Your task to perform on an android device: toggle airplane mode Image 0: 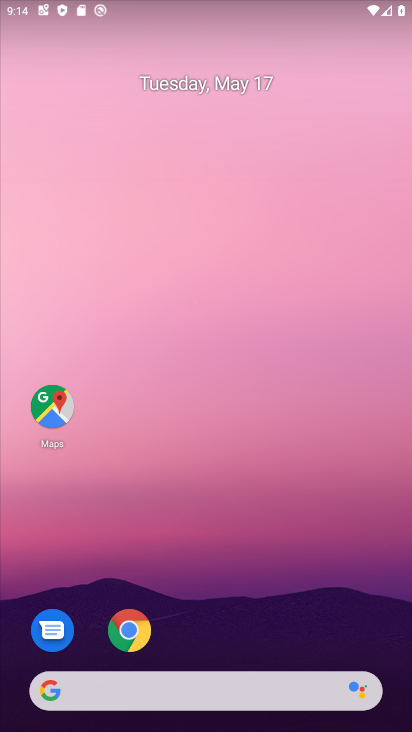
Step 0: drag from (246, 647) to (246, 21)
Your task to perform on an android device: toggle airplane mode Image 1: 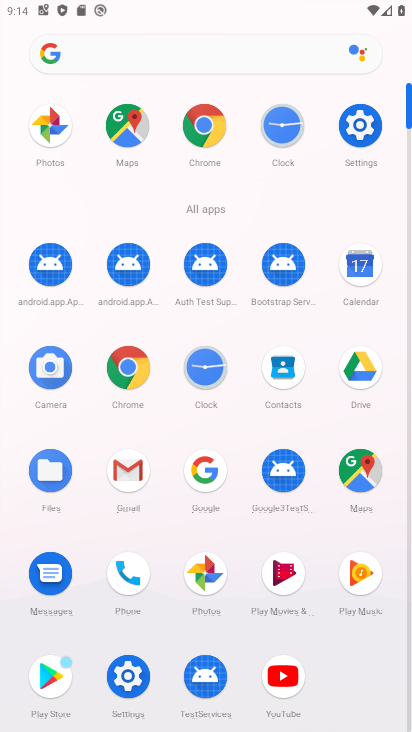
Step 1: click (357, 127)
Your task to perform on an android device: toggle airplane mode Image 2: 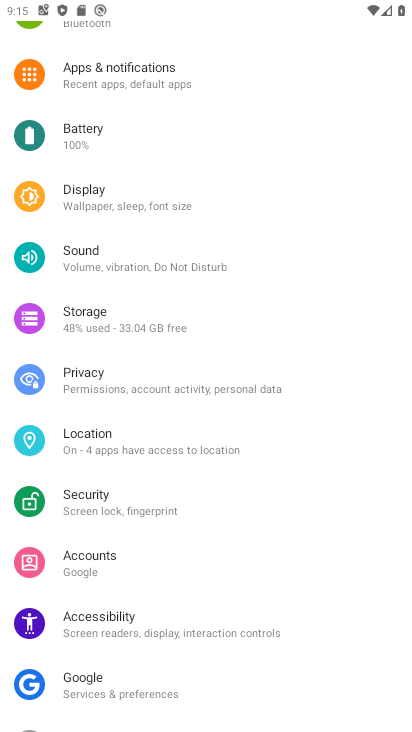
Step 2: drag from (252, 134) to (231, 507)
Your task to perform on an android device: toggle airplane mode Image 3: 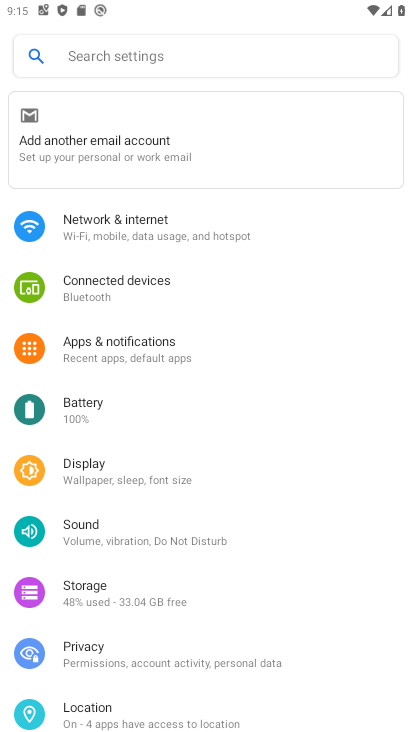
Step 3: click (193, 232)
Your task to perform on an android device: toggle airplane mode Image 4: 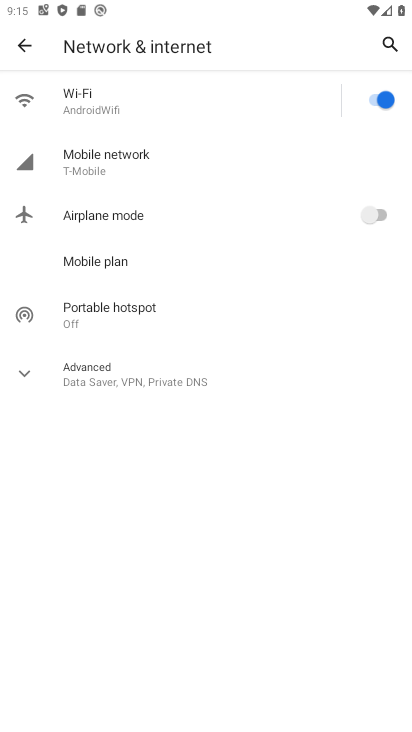
Step 4: click (377, 211)
Your task to perform on an android device: toggle airplane mode Image 5: 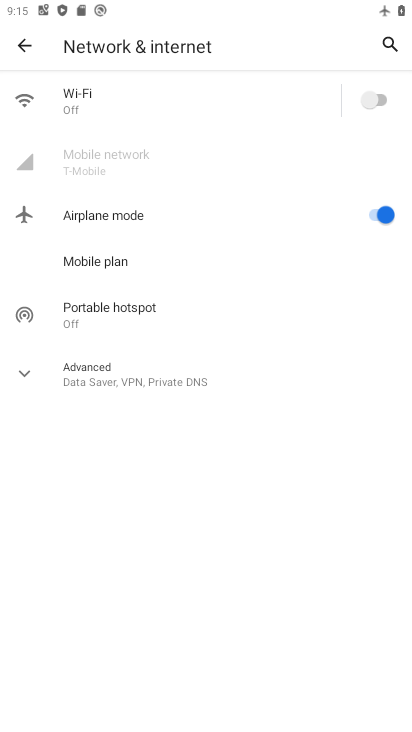
Step 5: task complete